Your task to perform on an android device: Show me productivity apps on the Play Store Image 0: 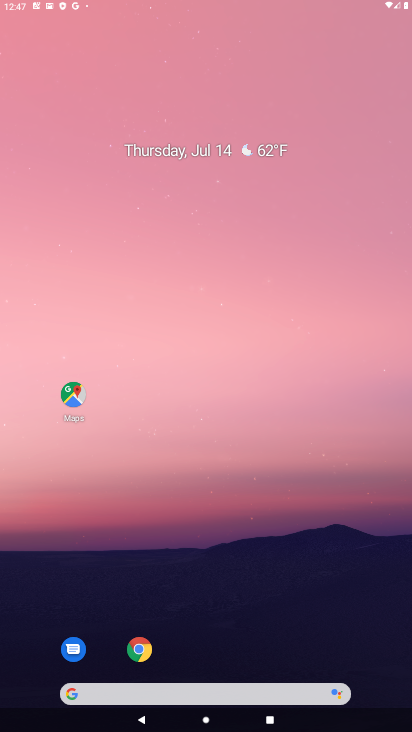
Step 0: drag from (371, 676) to (212, 98)
Your task to perform on an android device: Show me productivity apps on the Play Store Image 1: 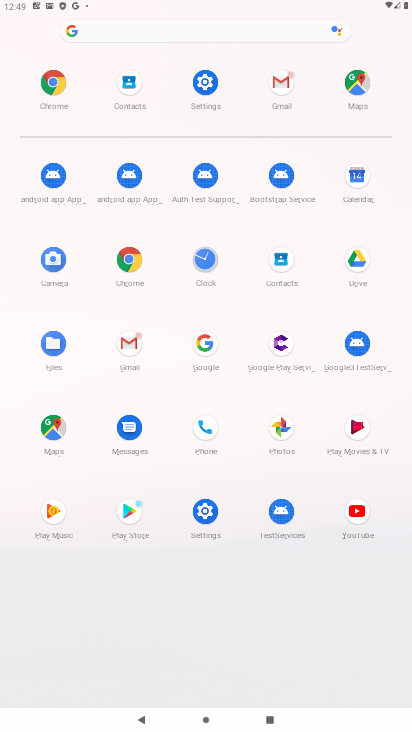
Step 1: click (125, 520)
Your task to perform on an android device: Show me productivity apps on the Play Store Image 2: 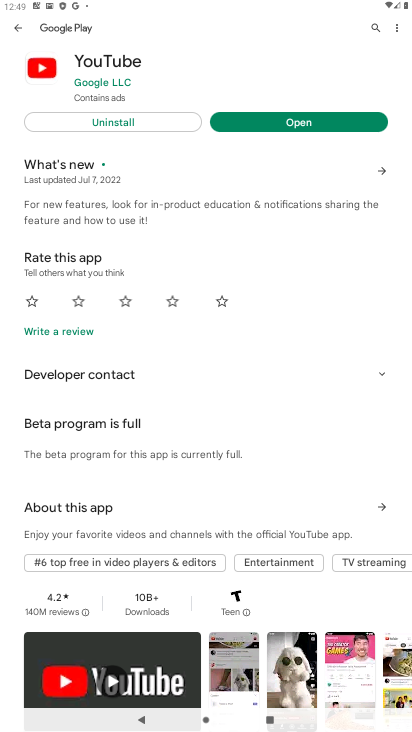
Step 2: press back button
Your task to perform on an android device: Show me productivity apps on the Play Store Image 3: 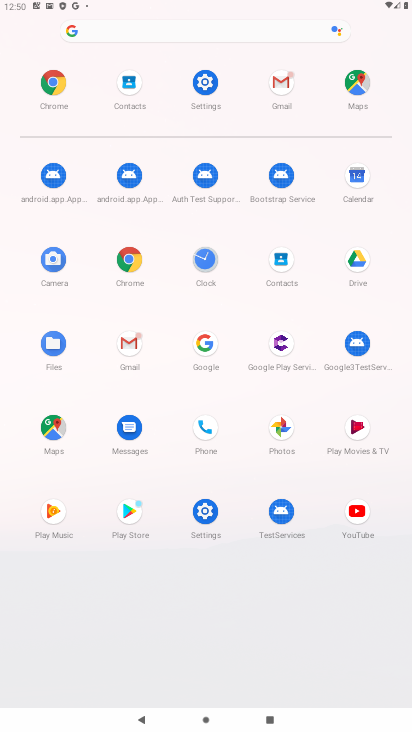
Step 3: click (125, 519)
Your task to perform on an android device: Show me productivity apps on the Play Store Image 4: 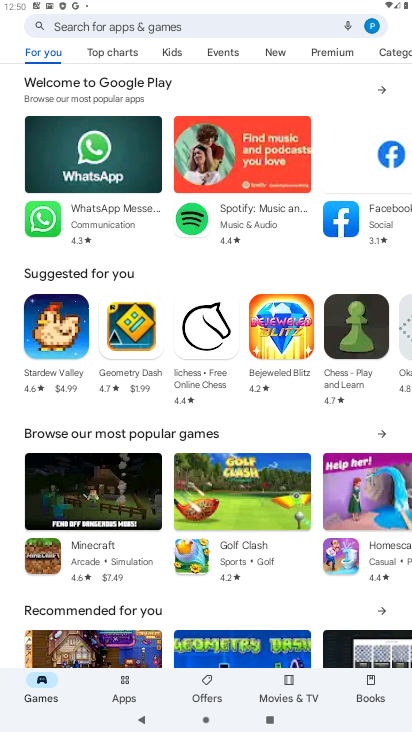
Step 4: task complete